Your task to perform on an android device: Open calendar and show me the first week of next month Image 0: 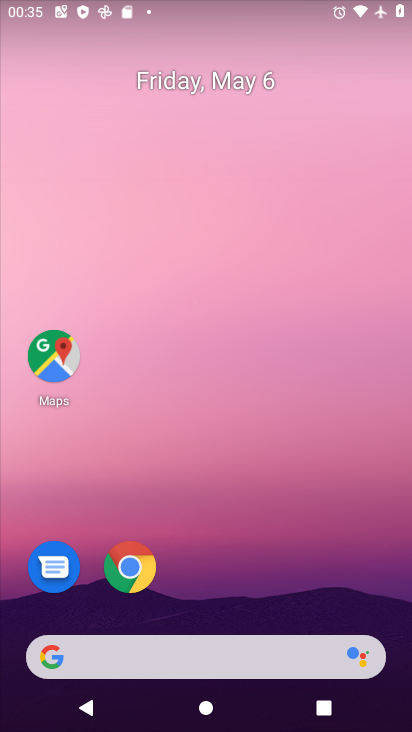
Step 0: drag from (228, 591) to (215, 154)
Your task to perform on an android device: Open calendar and show me the first week of next month Image 1: 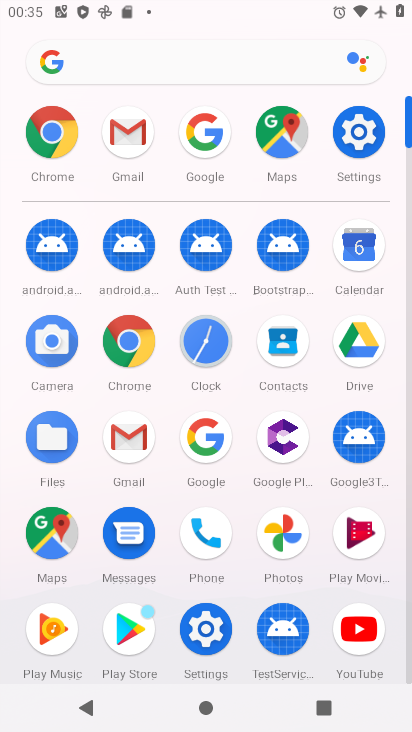
Step 1: click (348, 261)
Your task to perform on an android device: Open calendar and show me the first week of next month Image 2: 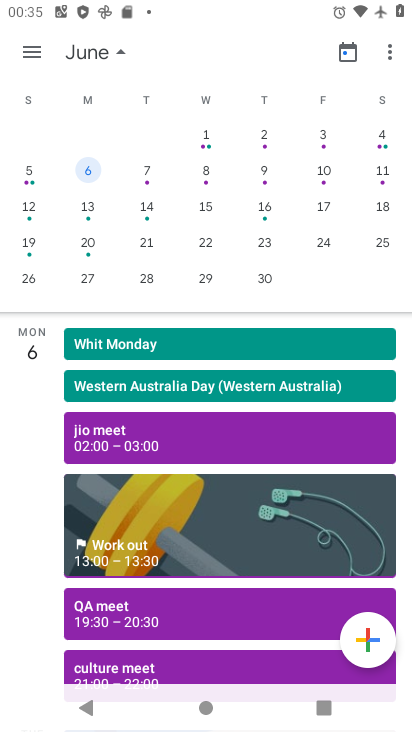
Step 2: click (203, 135)
Your task to perform on an android device: Open calendar and show me the first week of next month Image 3: 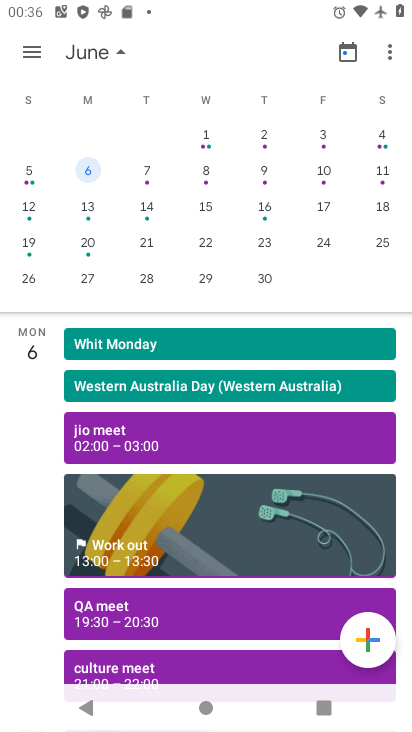
Step 3: click (208, 131)
Your task to perform on an android device: Open calendar and show me the first week of next month Image 4: 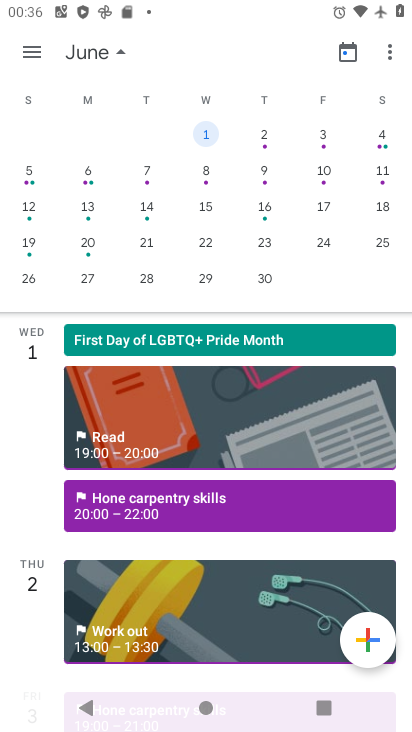
Step 4: task complete